Your task to perform on an android device: turn off wifi Image 0: 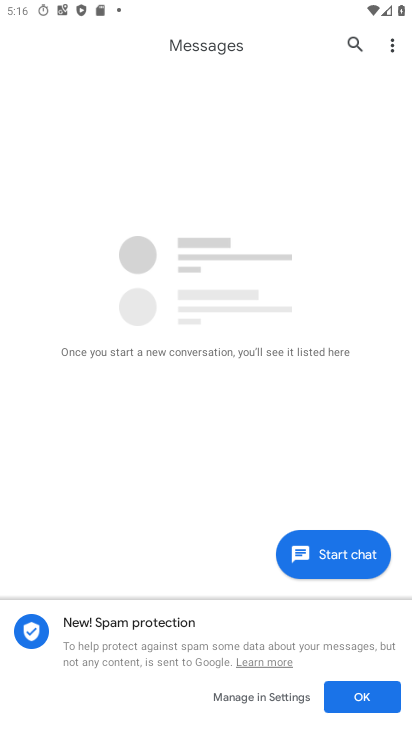
Step 0: press home button
Your task to perform on an android device: turn off wifi Image 1: 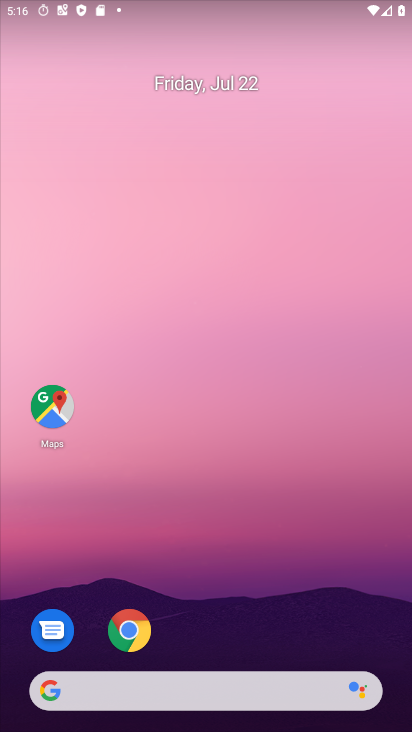
Step 1: drag from (314, 712) to (324, 44)
Your task to perform on an android device: turn off wifi Image 2: 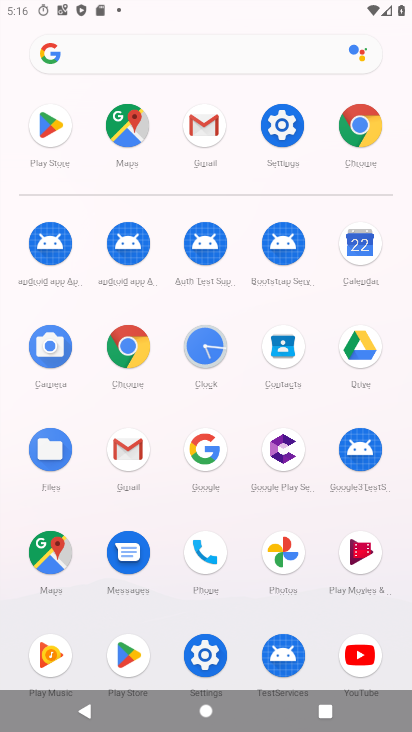
Step 2: click (276, 113)
Your task to perform on an android device: turn off wifi Image 3: 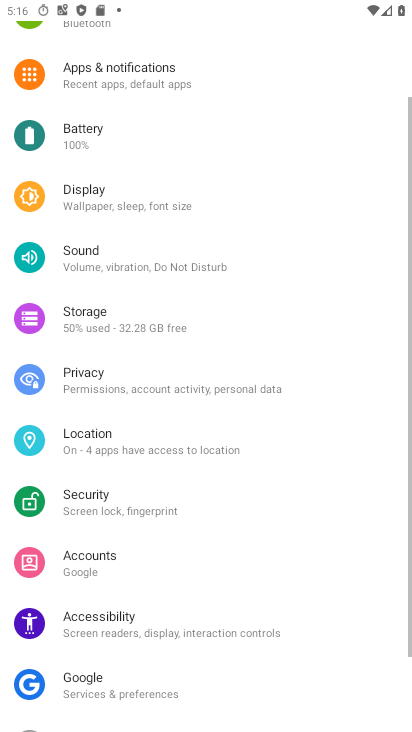
Step 3: drag from (127, 197) to (146, 689)
Your task to perform on an android device: turn off wifi Image 4: 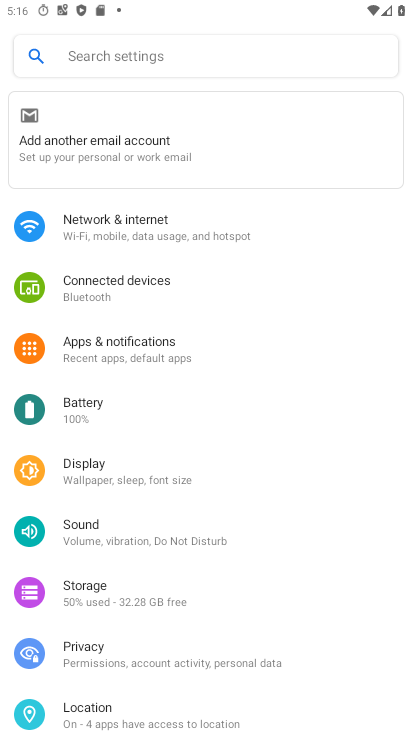
Step 4: click (151, 233)
Your task to perform on an android device: turn off wifi Image 5: 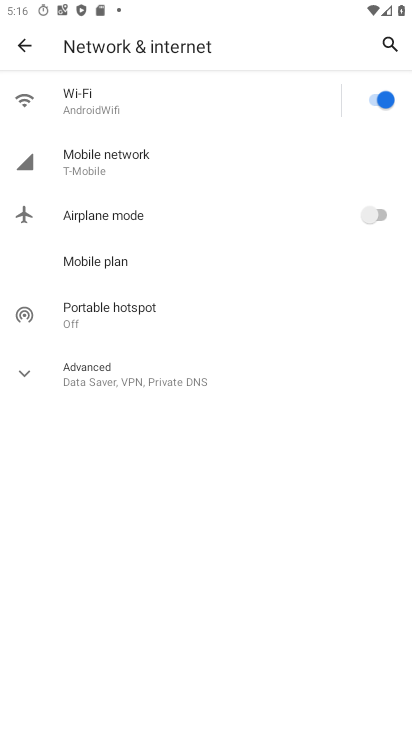
Step 5: click (376, 104)
Your task to perform on an android device: turn off wifi Image 6: 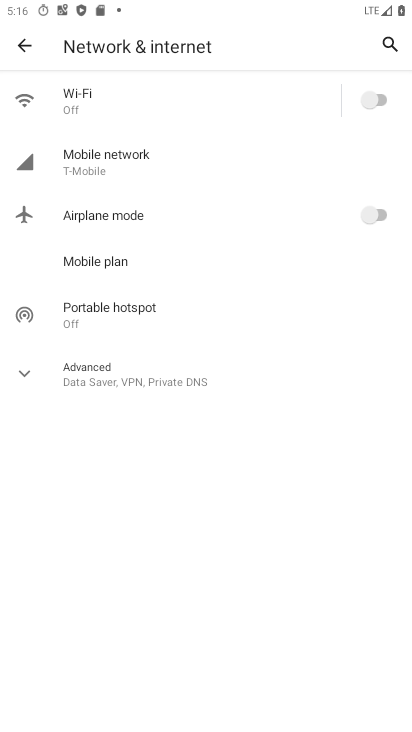
Step 6: task complete